Your task to perform on an android device: Go to notification settings Image 0: 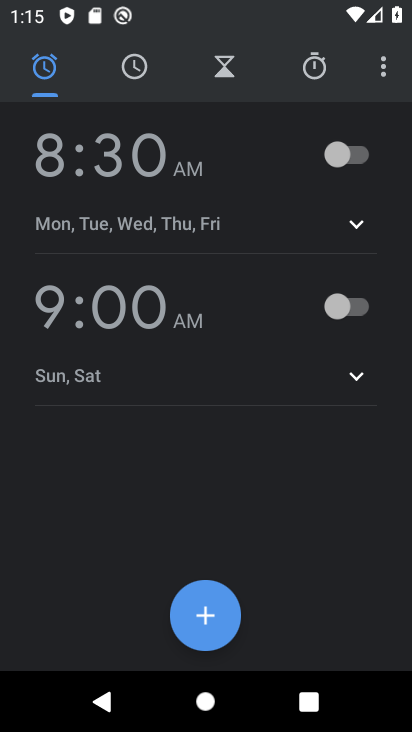
Step 0: press home button
Your task to perform on an android device: Go to notification settings Image 1: 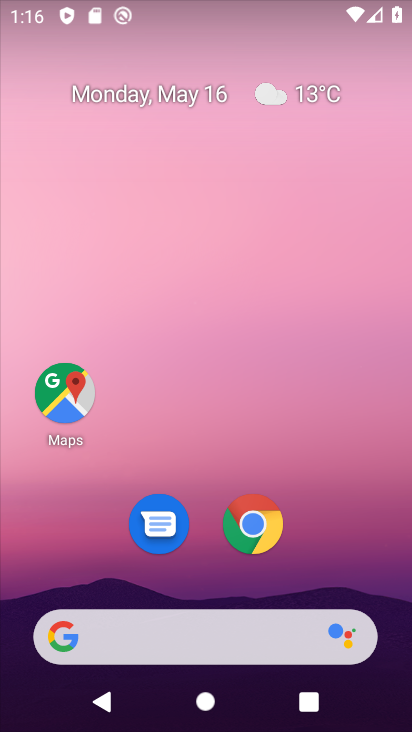
Step 1: drag from (247, 444) to (244, 53)
Your task to perform on an android device: Go to notification settings Image 2: 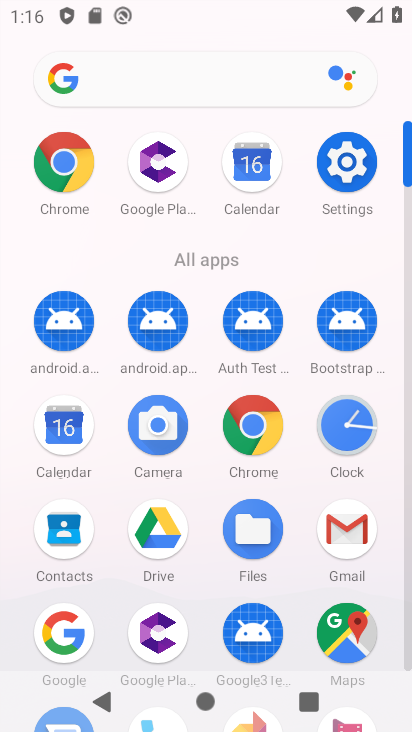
Step 2: click (358, 165)
Your task to perform on an android device: Go to notification settings Image 3: 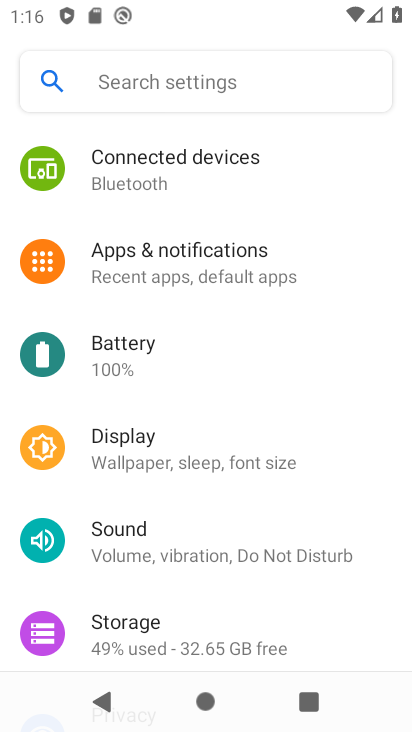
Step 3: click (243, 246)
Your task to perform on an android device: Go to notification settings Image 4: 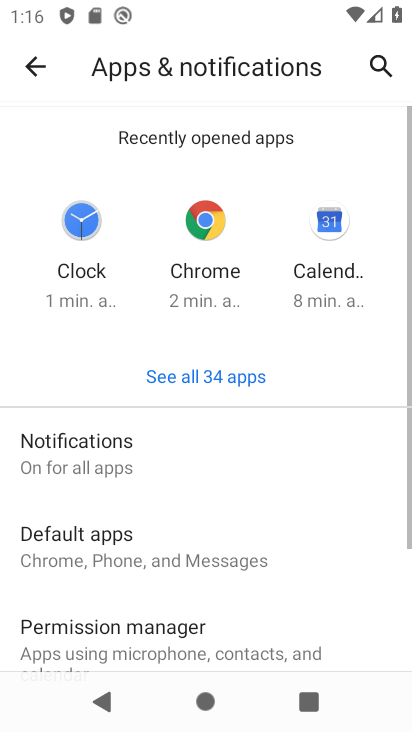
Step 4: click (226, 455)
Your task to perform on an android device: Go to notification settings Image 5: 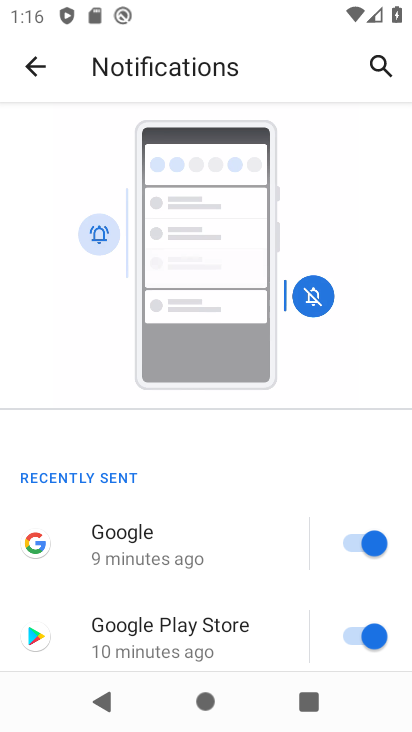
Step 5: task complete